Your task to perform on an android device: turn off smart reply in the gmail app Image 0: 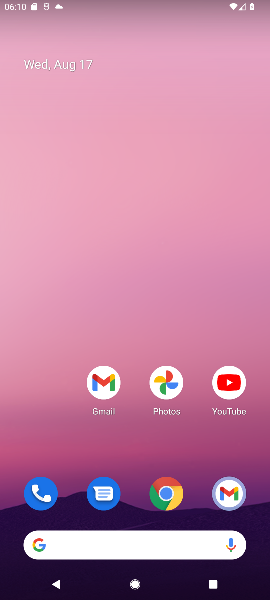
Step 0: press home button
Your task to perform on an android device: turn off smart reply in the gmail app Image 1: 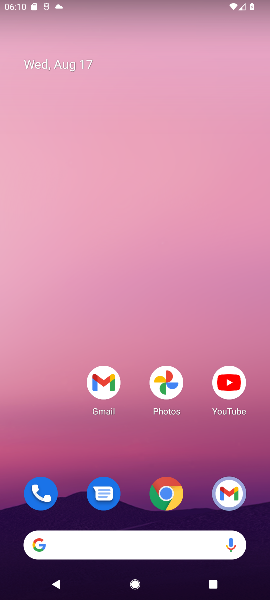
Step 1: click (233, 492)
Your task to perform on an android device: turn off smart reply in the gmail app Image 2: 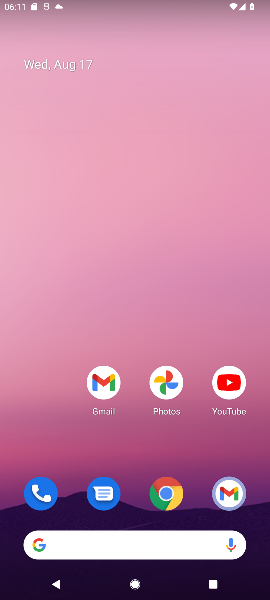
Step 2: click (226, 491)
Your task to perform on an android device: turn off smart reply in the gmail app Image 3: 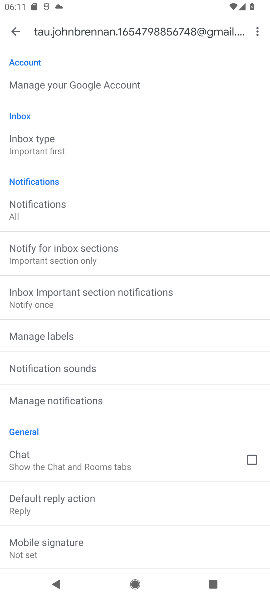
Step 3: drag from (162, 388) to (77, 4)
Your task to perform on an android device: turn off smart reply in the gmail app Image 4: 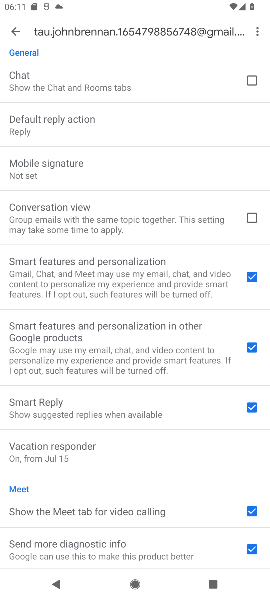
Step 4: click (259, 409)
Your task to perform on an android device: turn off smart reply in the gmail app Image 5: 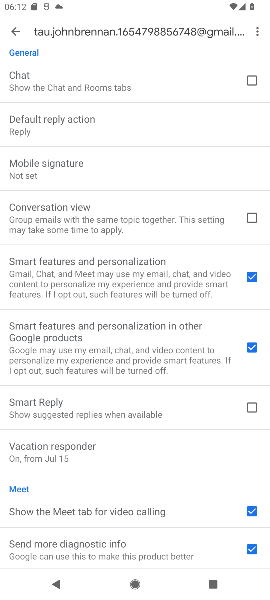
Step 5: task complete